Your task to perform on an android device: See recent photos Image 0: 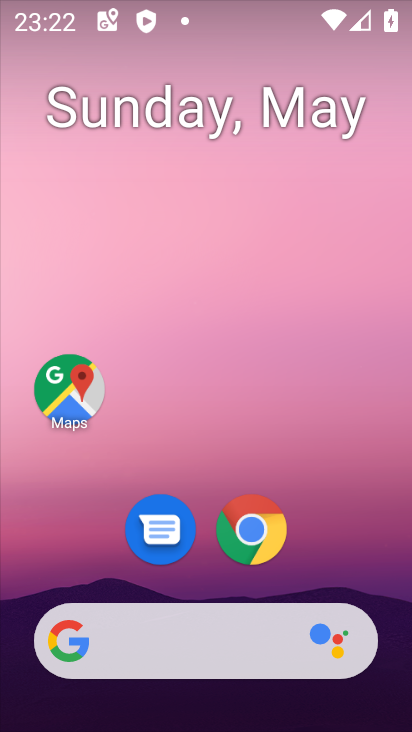
Step 0: drag from (342, 573) to (321, 51)
Your task to perform on an android device: See recent photos Image 1: 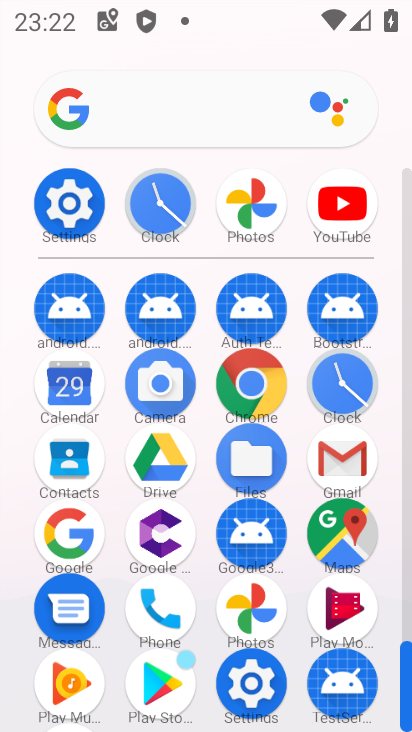
Step 1: click (261, 611)
Your task to perform on an android device: See recent photos Image 2: 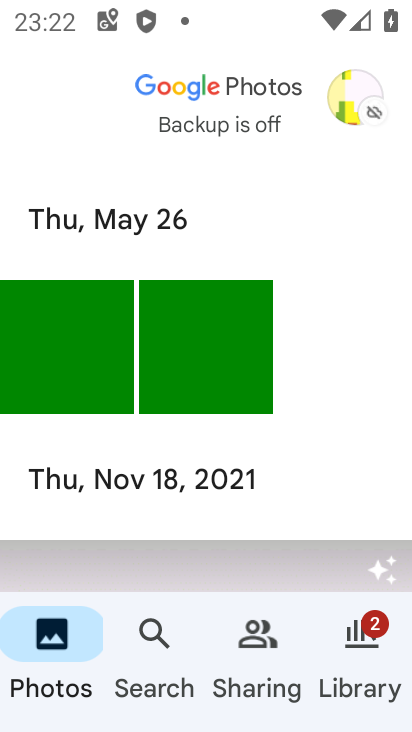
Step 2: click (393, 650)
Your task to perform on an android device: See recent photos Image 3: 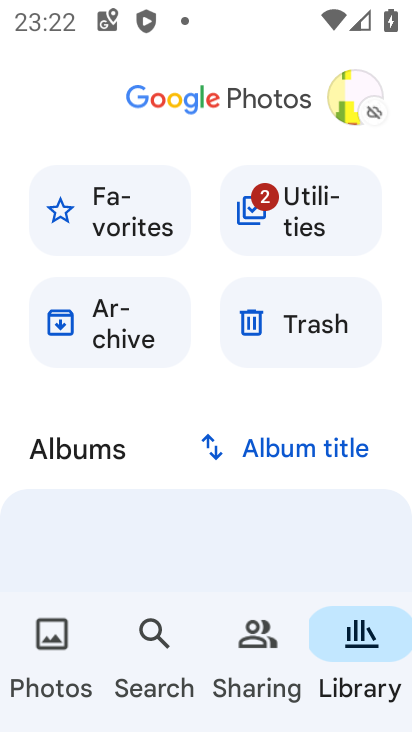
Step 3: click (120, 298)
Your task to perform on an android device: See recent photos Image 4: 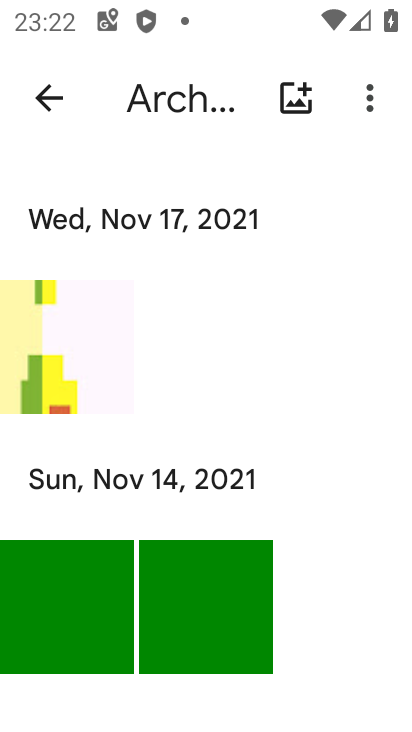
Step 4: task complete